Your task to perform on an android device: delete browsing data in the chrome app Image 0: 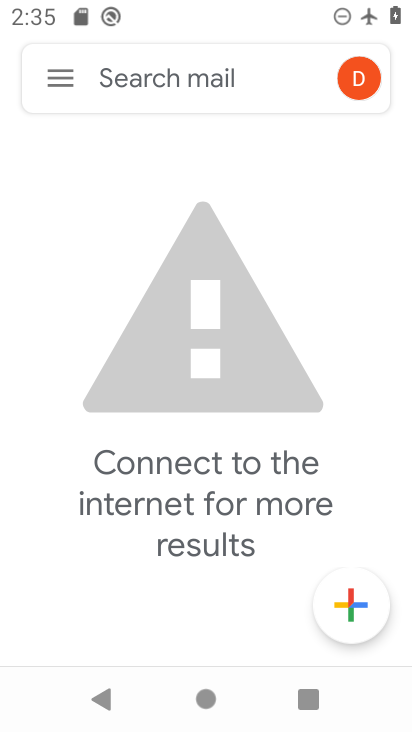
Step 0: press home button
Your task to perform on an android device: delete browsing data in the chrome app Image 1: 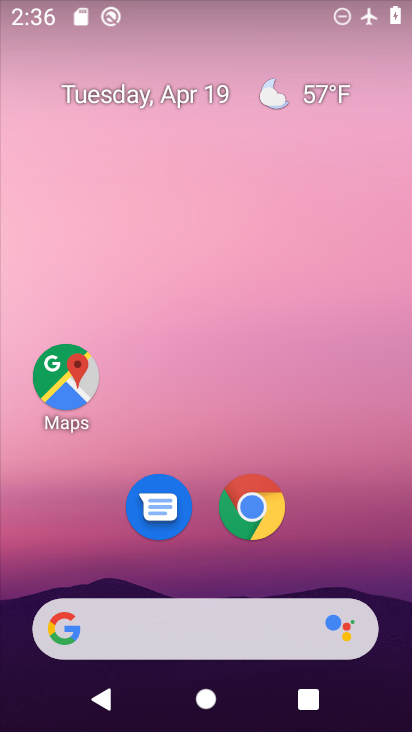
Step 1: click (253, 524)
Your task to perform on an android device: delete browsing data in the chrome app Image 2: 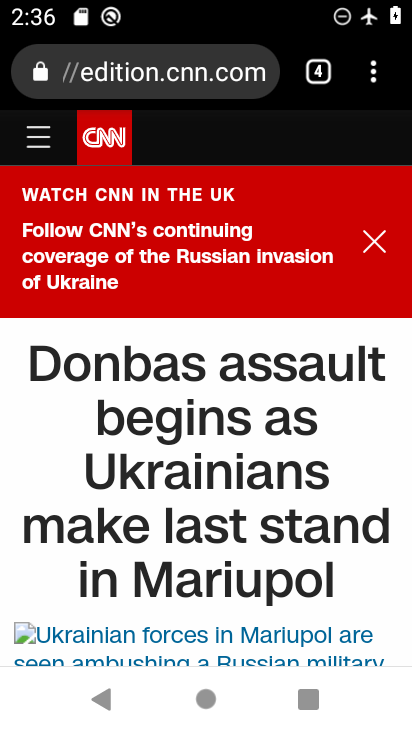
Step 2: click (243, 79)
Your task to perform on an android device: delete browsing data in the chrome app Image 3: 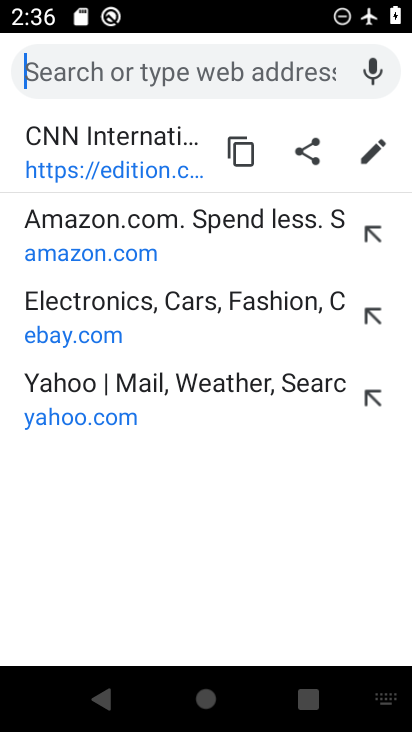
Step 3: press back button
Your task to perform on an android device: delete browsing data in the chrome app Image 4: 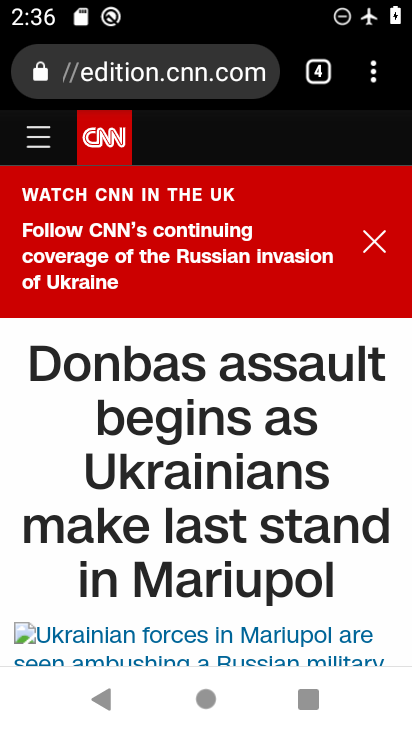
Step 4: click (383, 78)
Your task to perform on an android device: delete browsing data in the chrome app Image 5: 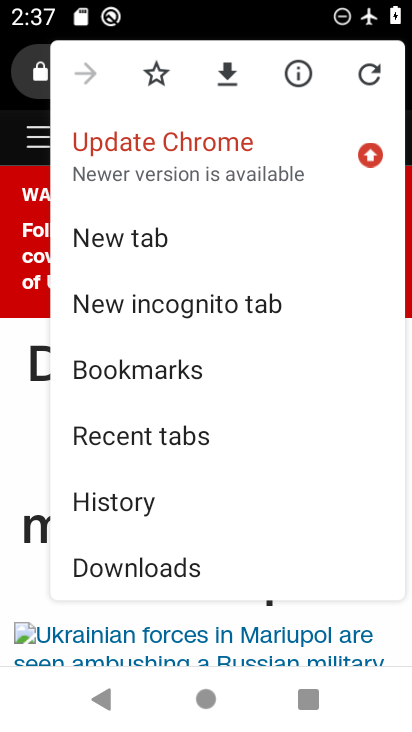
Step 5: click (174, 500)
Your task to perform on an android device: delete browsing data in the chrome app Image 6: 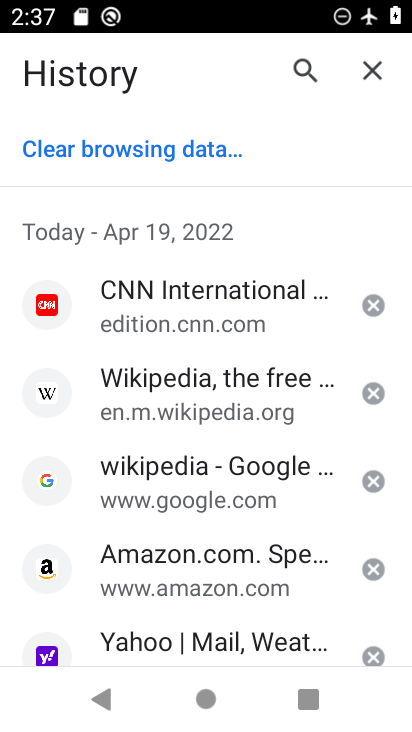
Step 6: drag from (210, 503) to (271, 307)
Your task to perform on an android device: delete browsing data in the chrome app Image 7: 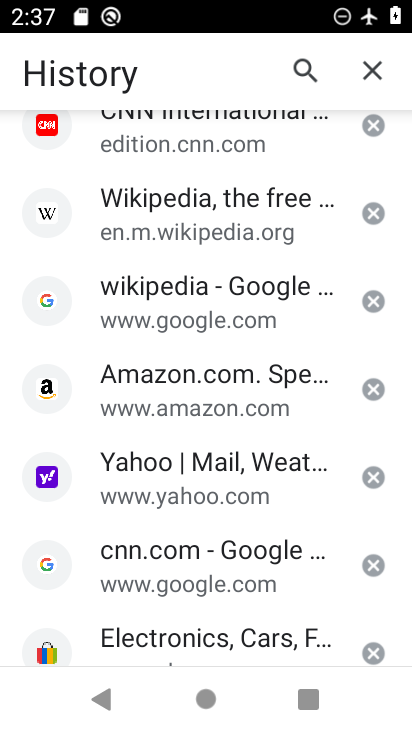
Step 7: drag from (282, 216) to (247, 634)
Your task to perform on an android device: delete browsing data in the chrome app Image 8: 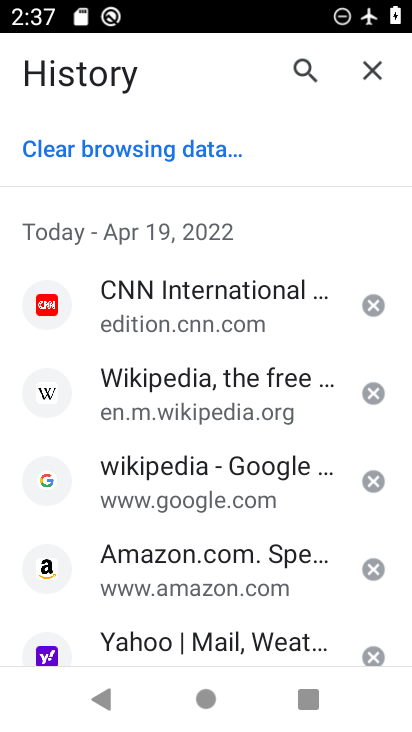
Step 8: click (157, 152)
Your task to perform on an android device: delete browsing data in the chrome app Image 9: 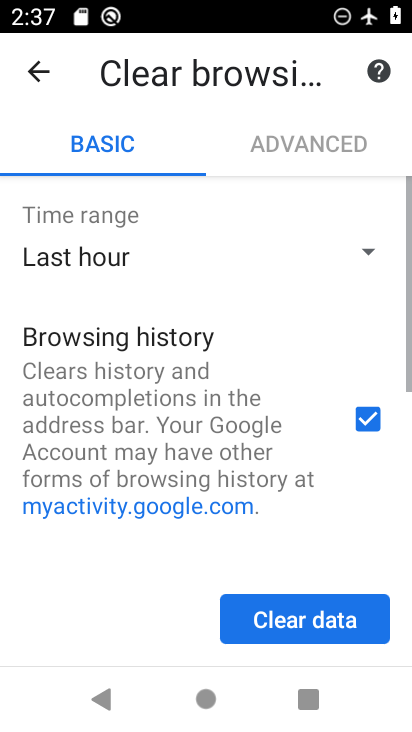
Step 9: click (288, 617)
Your task to perform on an android device: delete browsing data in the chrome app Image 10: 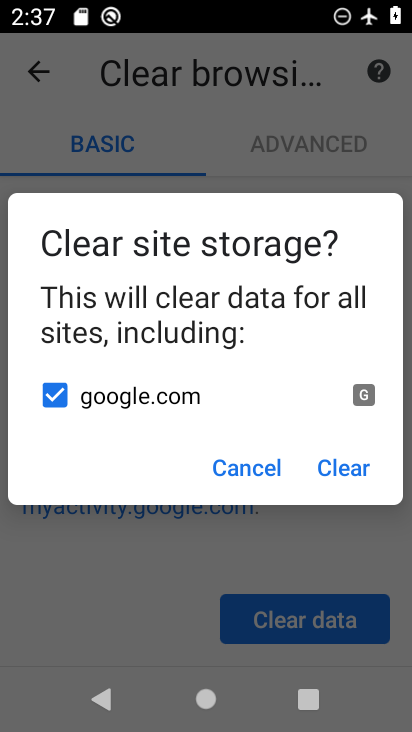
Step 10: click (355, 472)
Your task to perform on an android device: delete browsing data in the chrome app Image 11: 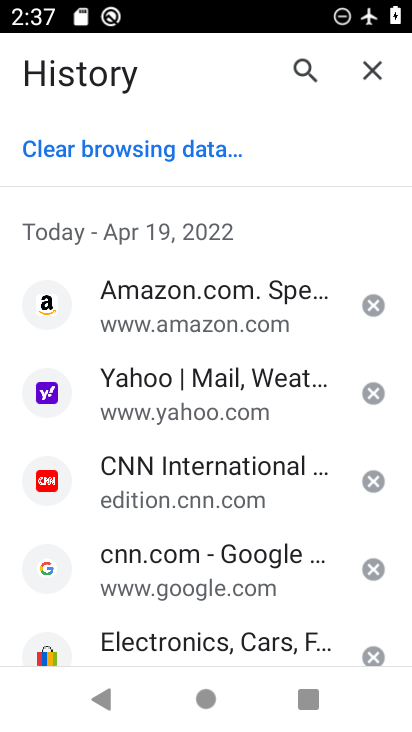
Step 11: task complete